Your task to perform on an android device: Open accessibility settings Image 0: 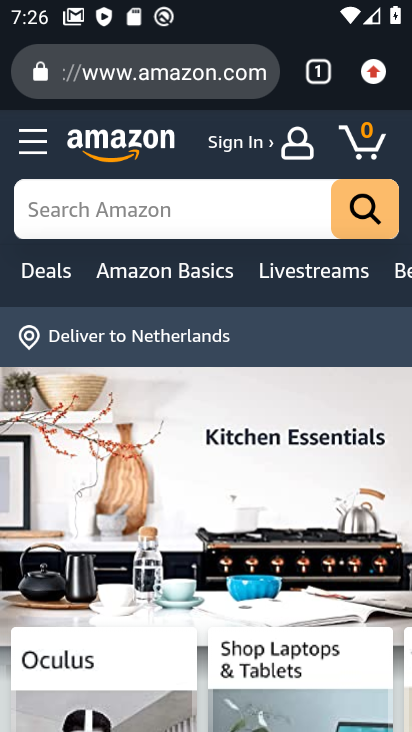
Step 0: press home button
Your task to perform on an android device: Open accessibility settings Image 1: 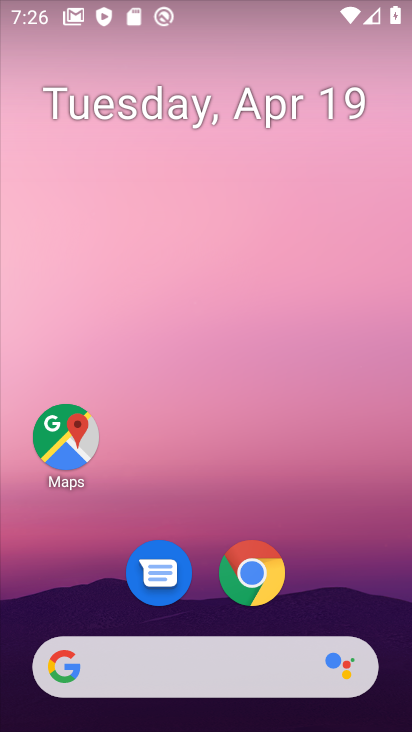
Step 1: drag from (370, 596) to (288, 48)
Your task to perform on an android device: Open accessibility settings Image 2: 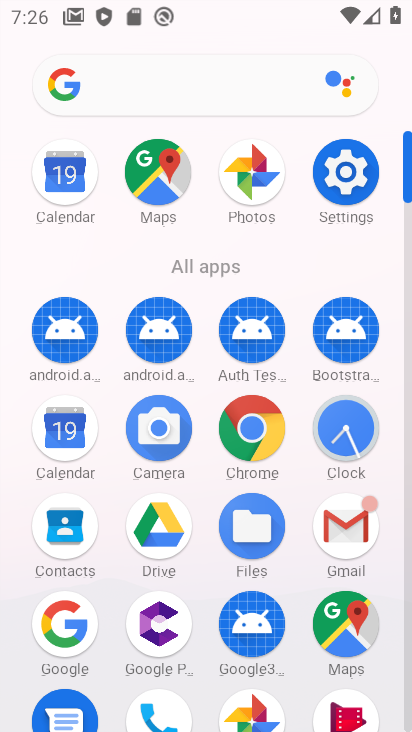
Step 2: click (347, 162)
Your task to perform on an android device: Open accessibility settings Image 3: 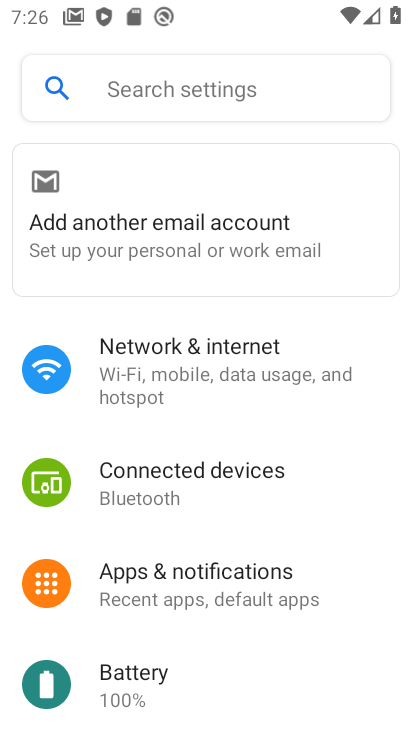
Step 3: drag from (368, 681) to (346, 225)
Your task to perform on an android device: Open accessibility settings Image 4: 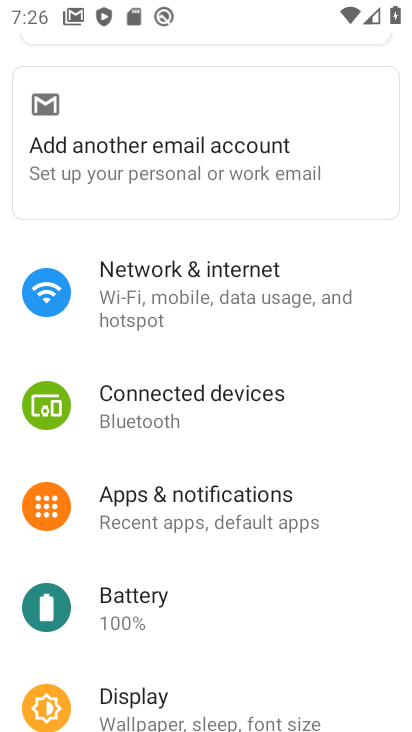
Step 4: drag from (345, 676) to (372, 192)
Your task to perform on an android device: Open accessibility settings Image 5: 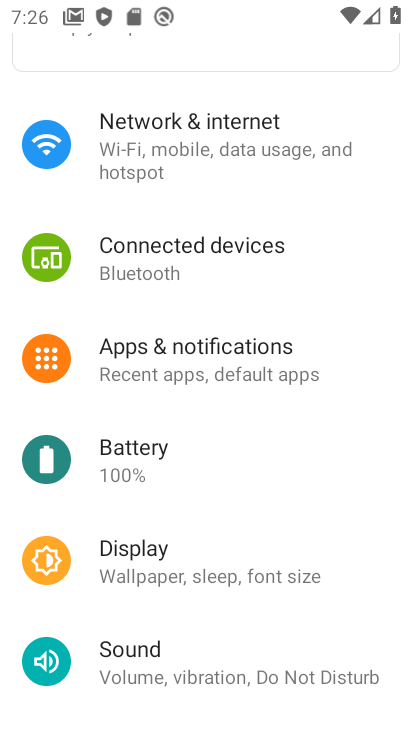
Step 5: drag from (391, 423) to (390, 269)
Your task to perform on an android device: Open accessibility settings Image 6: 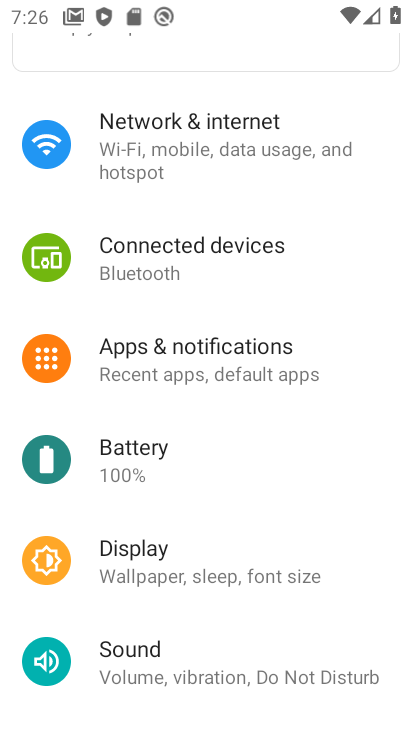
Step 6: drag from (359, 457) to (363, 51)
Your task to perform on an android device: Open accessibility settings Image 7: 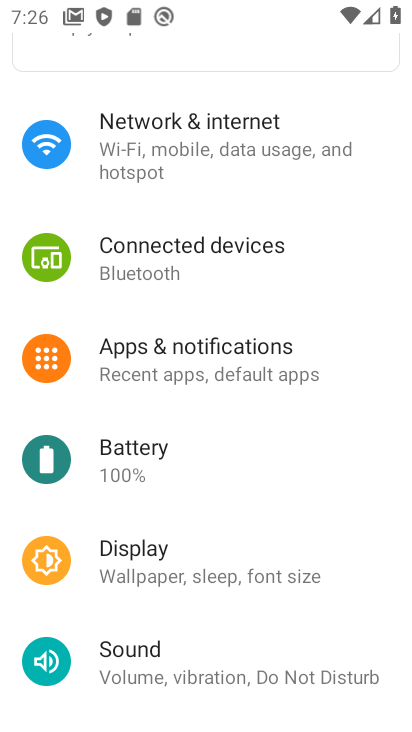
Step 7: drag from (385, 374) to (384, 137)
Your task to perform on an android device: Open accessibility settings Image 8: 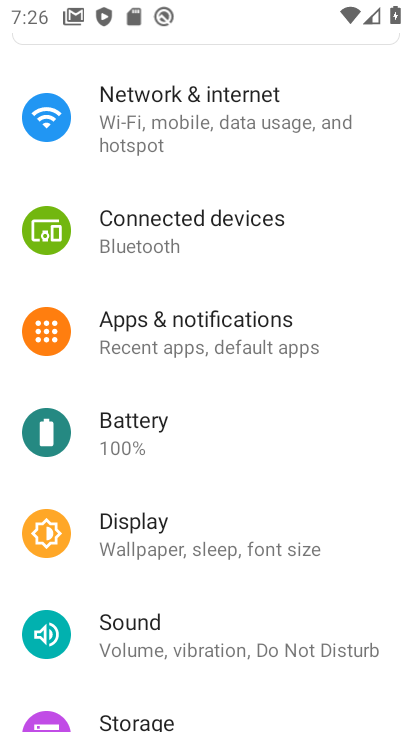
Step 8: drag from (371, 451) to (371, 81)
Your task to perform on an android device: Open accessibility settings Image 9: 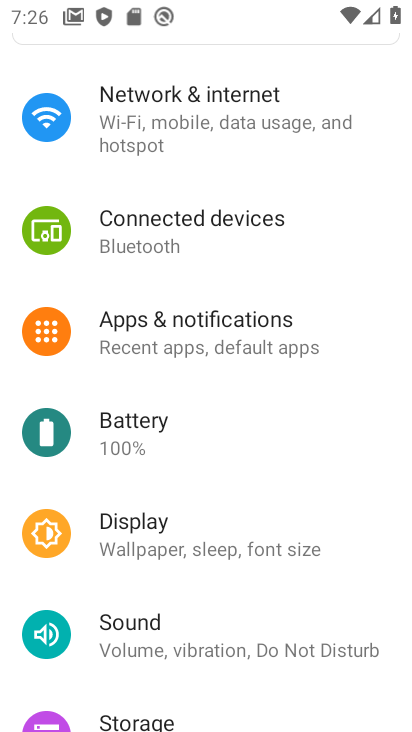
Step 9: drag from (387, 495) to (411, 87)
Your task to perform on an android device: Open accessibility settings Image 10: 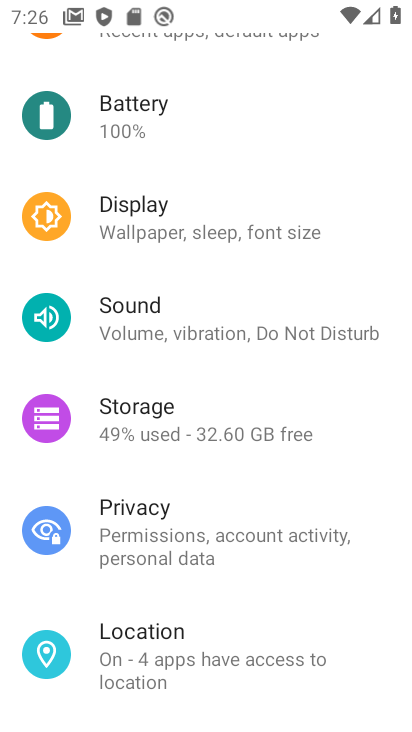
Step 10: drag from (407, 343) to (409, 73)
Your task to perform on an android device: Open accessibility settings Image 11: 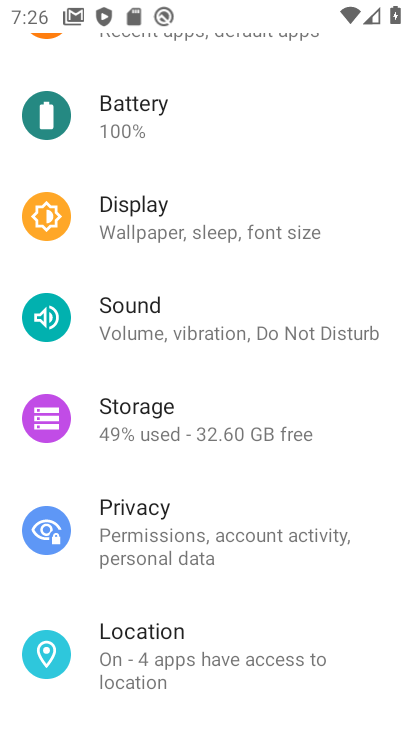
Step 11: drag from (358, 609) to (358, 200)
Your task to perform on an android device: Open accessibility settings Image 12: 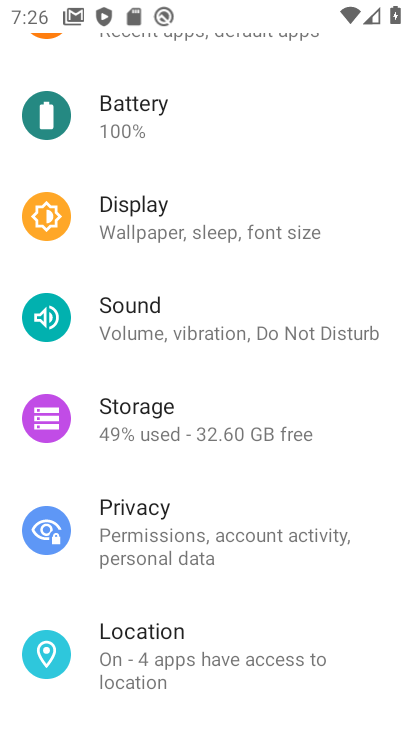
Step 12: drag from (369, 622) to (344, 55)
Your task to perform on an android device: Open accessibility settings Image 13: 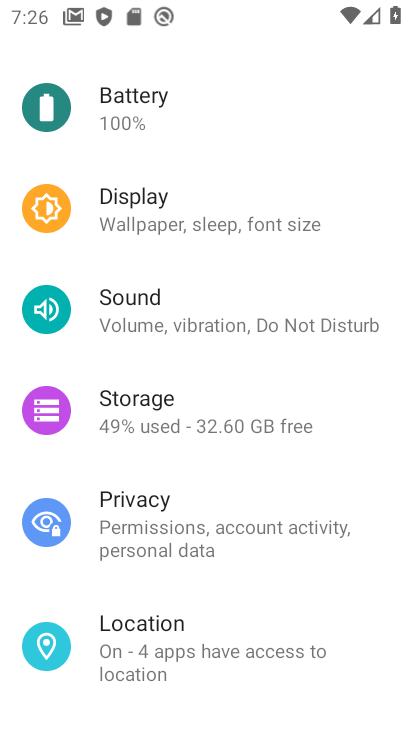
Step 13: drag from (367, 681) to (395, 160)
Your task to perform on an android device: Open accessibility settings Image 14: 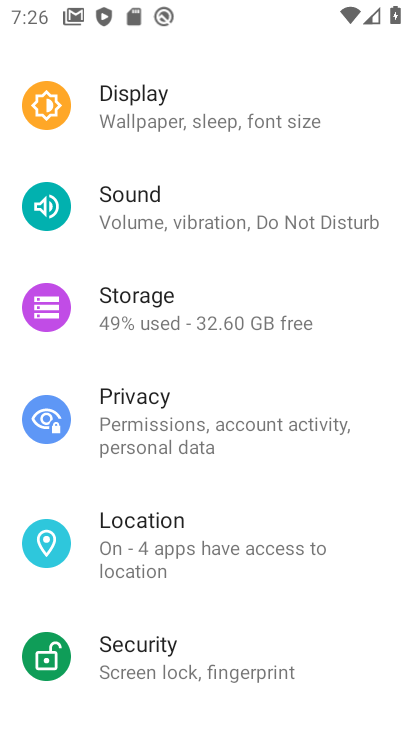
Step 14: drag from (348, 657) to (340, 100)
Your task to perform on an android device: Open accessibility settings Image 15: 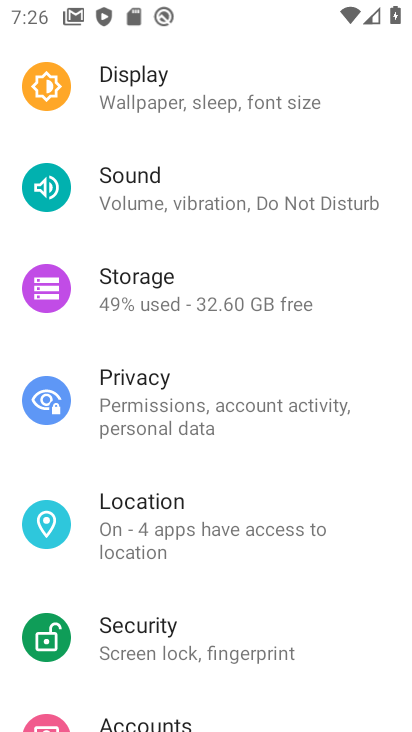
Step 15: drag from (362, 623) to (403, 87)
Your task to perform on an android device: Open accessibility settings Image 16: 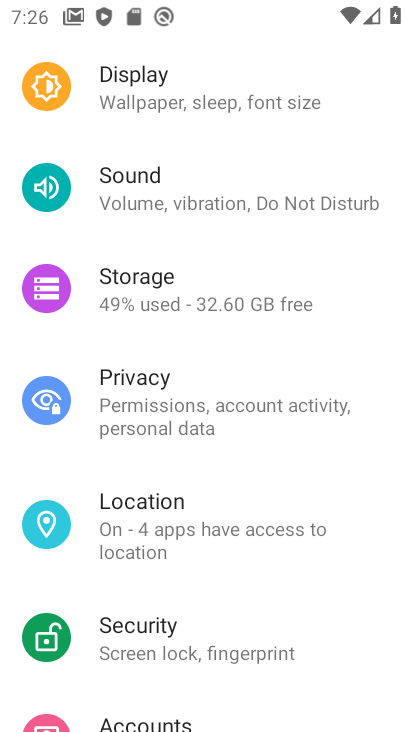
Step 16: drag from (341, 573) to (317, 248)
Your task to perform on an android device: Open accessibility settings Image 17: 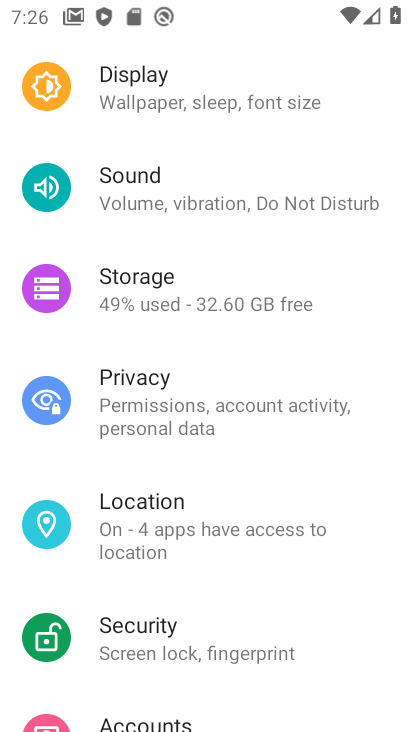
Step 17: drag from (370, 334) to (355, 188)
Your task to perform on an android device: Open accessibility settings Image 18: 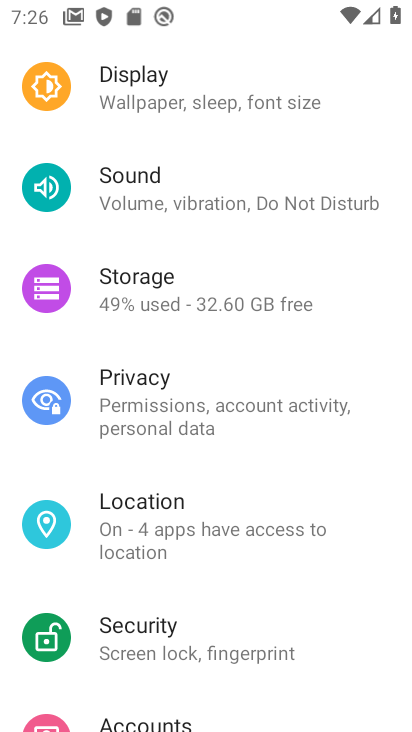
Step 18: drag from (379, 575) to (405, 177)
Your task to perform on an android device: Open accessibility settings Image 19: 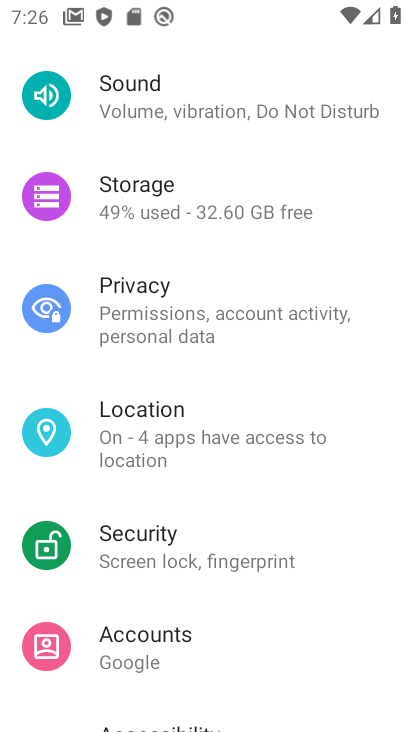
Step 19: drag from (349, 607) to (362, 209)
Your task to perform on an android device: Open accessibility settings Image 20: 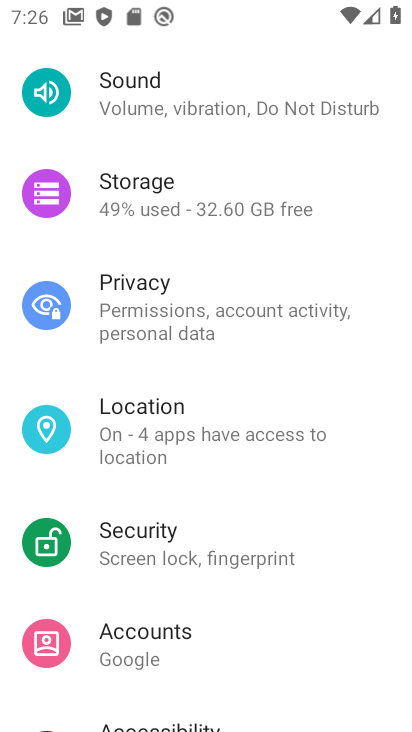
Step 20: drag from (340, 671) to (363, 246)
Your task to perform on an android device: Open accessibility settings Image 21: 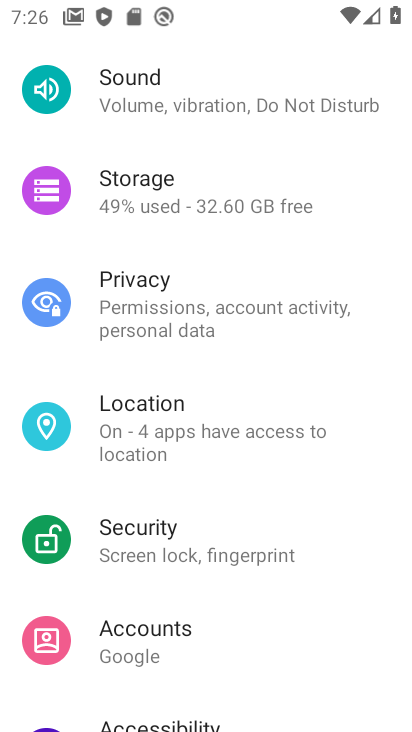
Step 21: click (179, 718)
Your task to perform on an android device: Open accessibility settings Image 22: 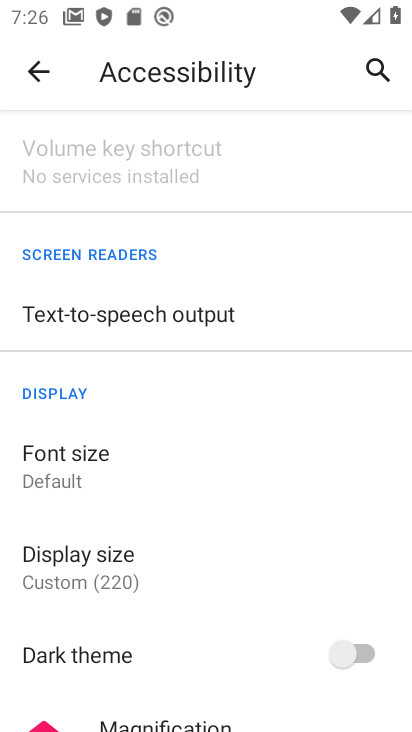
Step 22: task complete